Your task to perform on an android device: change notification settings in the gmail app Image 0: 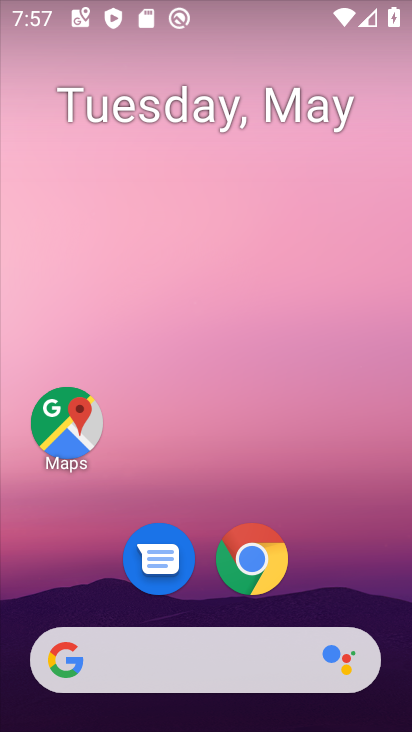
Step 0: drag from (385, 567) to (408, 83)
Your task to perform on an android device: change notification settings in the gmail app Image 1: 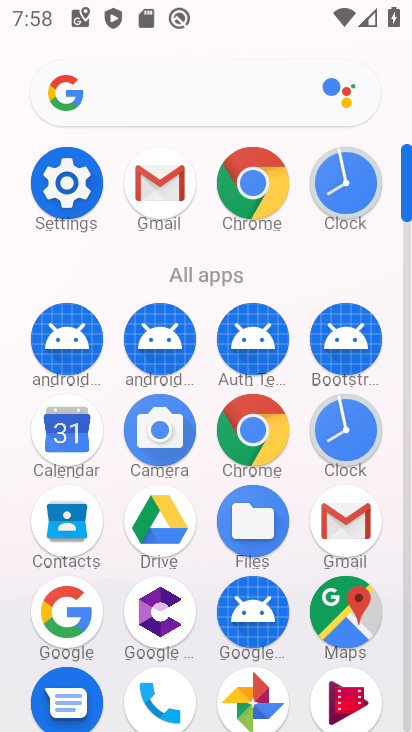
Step 1: click (344, 514)
Your task to perform on an android device: change notification settings in the gmail app Image 2: 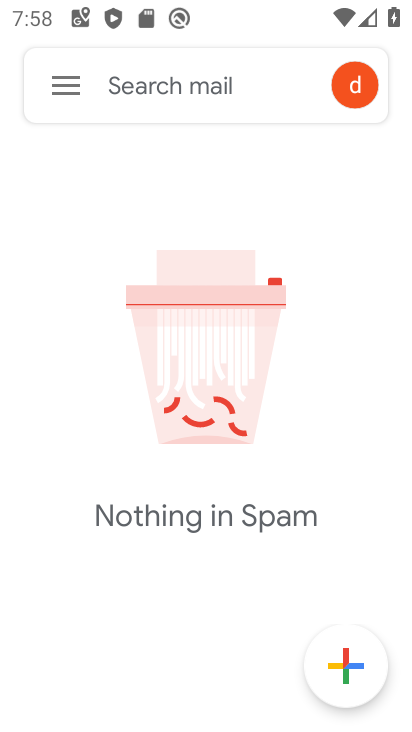
Step 2: click (57, 90)
Your task to perform on an android device: change notification settings in the gmail app Image 3: 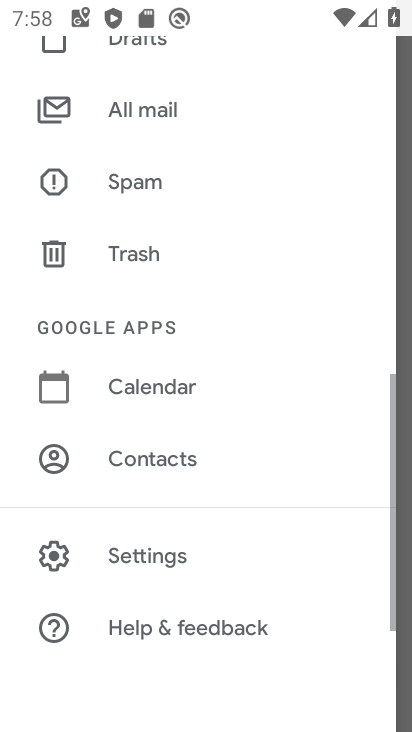
Step 3: drag from (200, 553) to (163, 217)
Your task to perform on an android device: change notification settings in the gmail app Image 4: 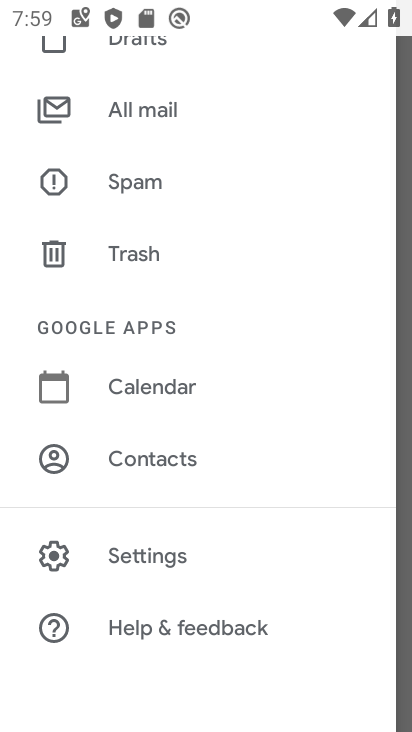
Step 4: click (114, 552)
Your task to perform on an android device: change notification settings in the gmail app Image 5: 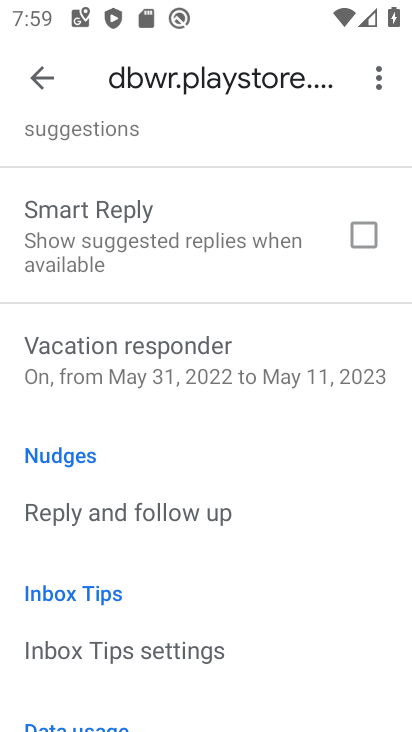
Step 5: drag from (256, 515) to (252, 150)
Your task to perform on an android device: change notification settings in the gmail app Image 6: 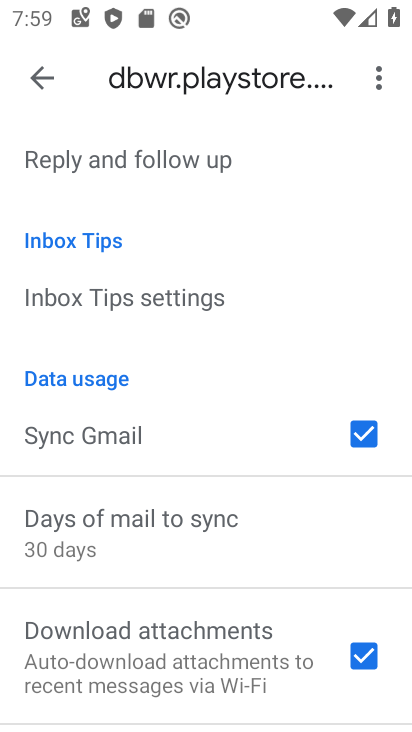
Step 6: drag from (201, 323) to (223, 82)
Your task to perform on an android device: change notification settings in the gmail app Image 7: 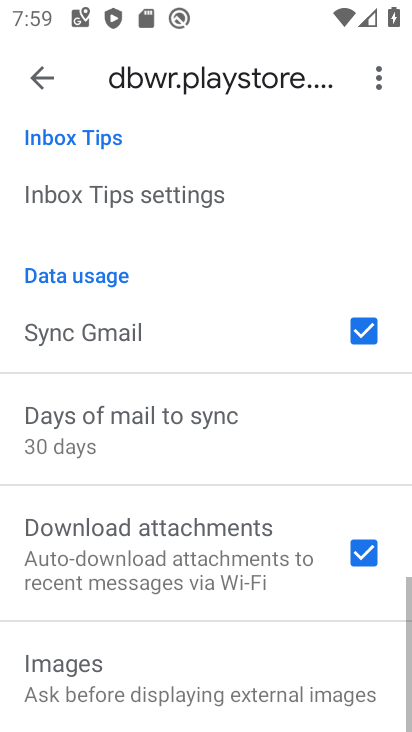
Step 7: drag from (244, 540) to (278, 110)
Your task to perform on an android device: change notification settings in the gmail app Image 8: 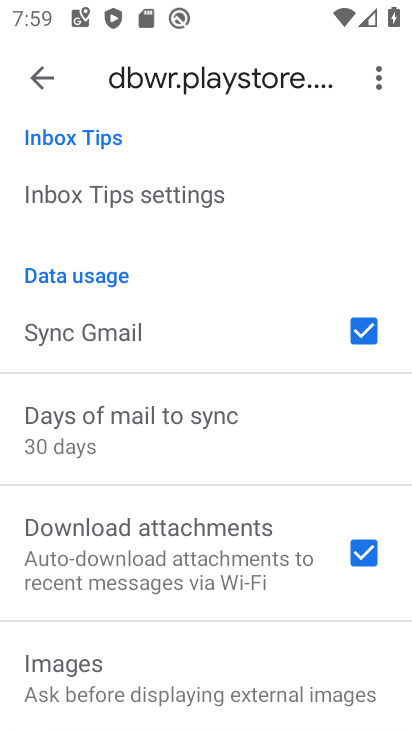
Step 8: drag from (289, 201) to (276, 571)
Your task to perform on an android device: change notification settings in the gmail app Image 9: 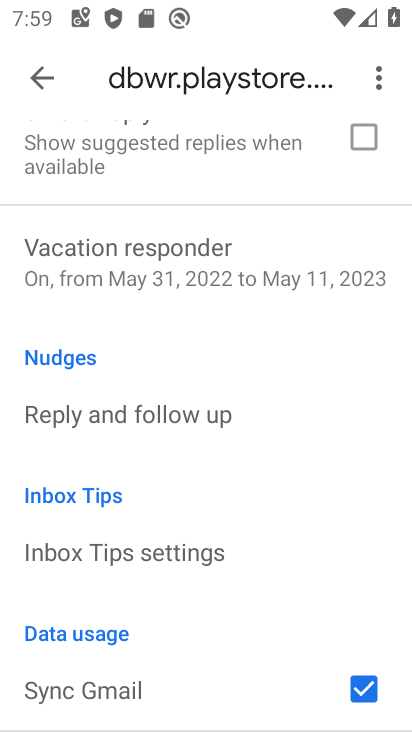
Step 9: drag from (247, 172) to (327, 584)
Your task to perform on an android device: change notification settings in the gmail app Image 10: 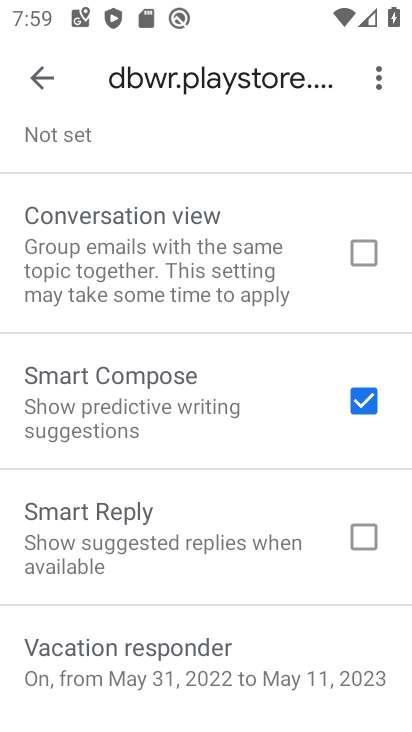
Step 10: drag from (279, 301) to (352, 607)
Your task to perform on an android device: change notification settings in the gmail app Image 11: 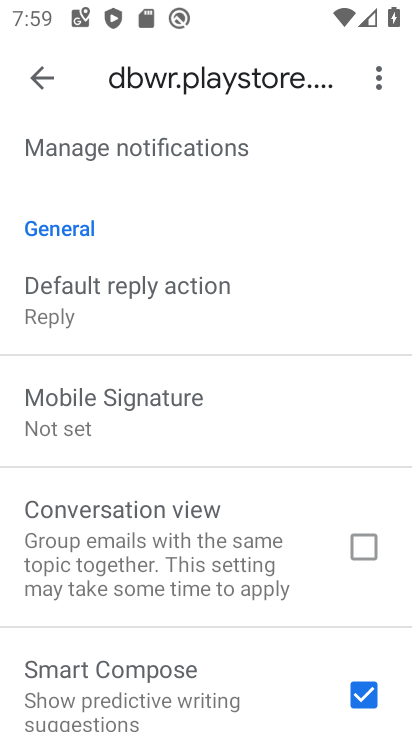
Step 11: drag from (230, 263) to (291, 571)
Your task to perform on an android device: change notification settings in the gmail app Image 12: 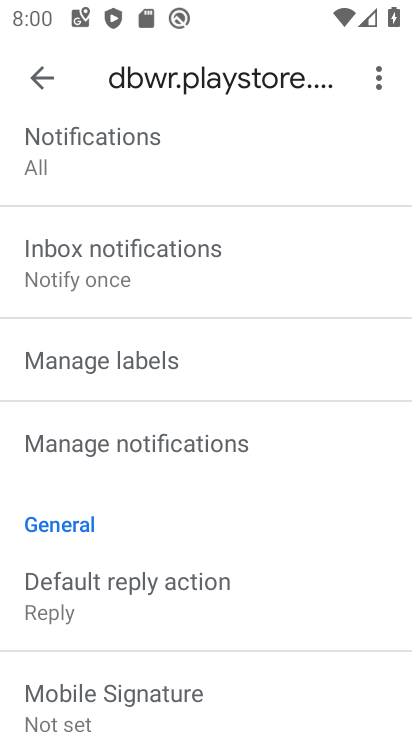
Step 12: click (122, 173)
Your task to perform on an android device: change notification settings in the gmail app Image 13: 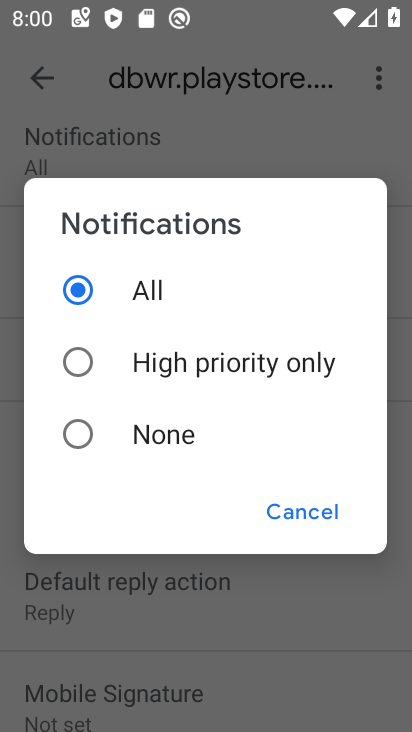
Step 13: click (106, 376)
Your task to perform on an android device: change notification settings in the gmail app Image 14: 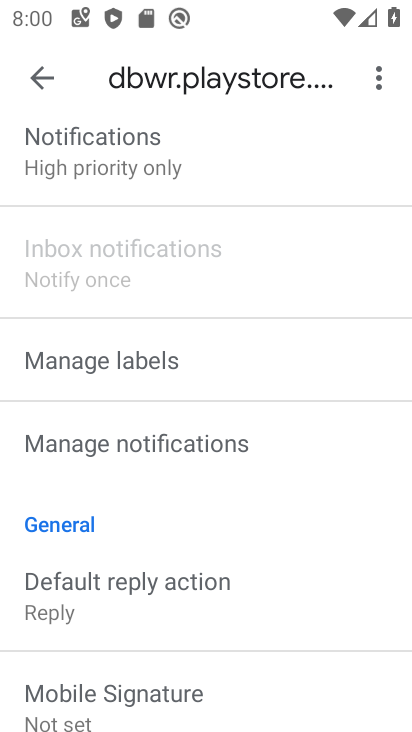
Step 14: task complete